Your task to perform on an android device: Search for pizza restaurants on Maps Image 0: 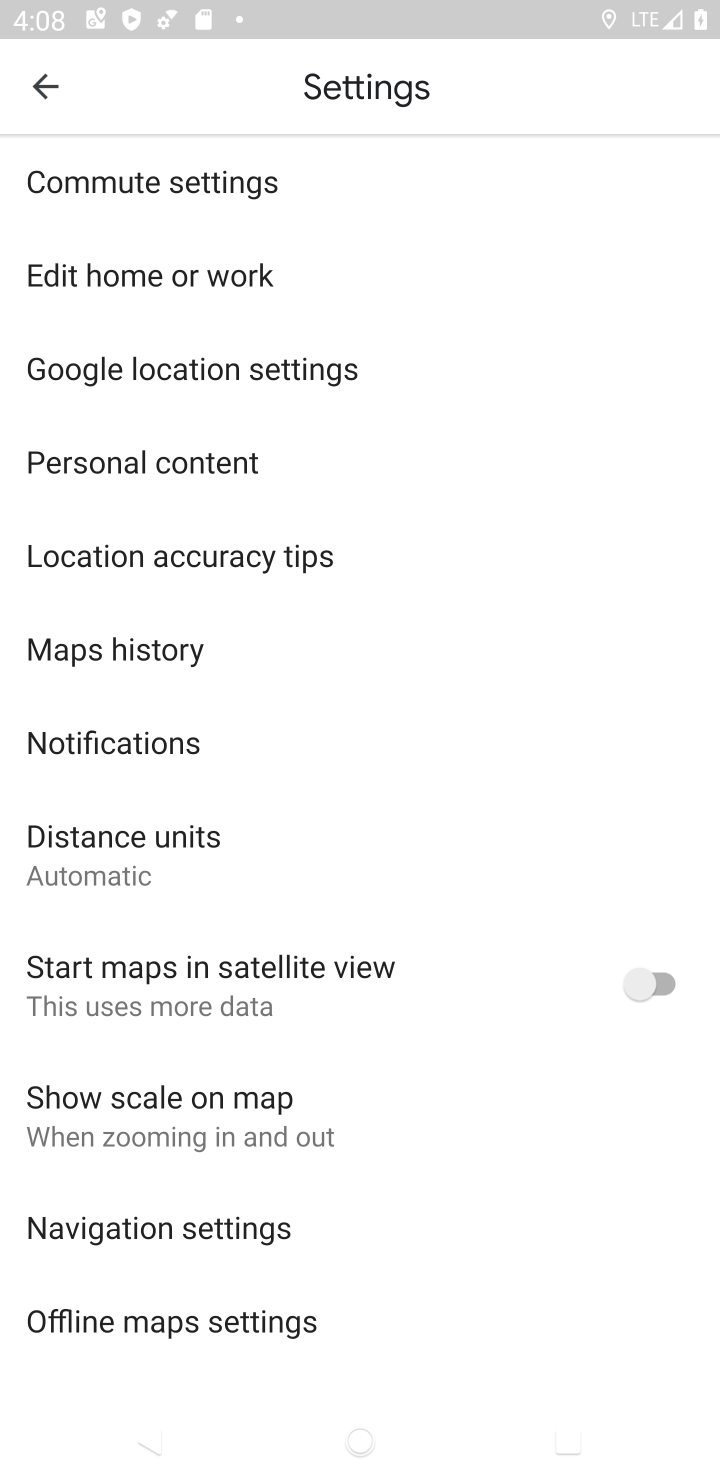
Step 0: press home button
Your task to perform on an android device: Search for pizza restaurants on Maps Image 1: 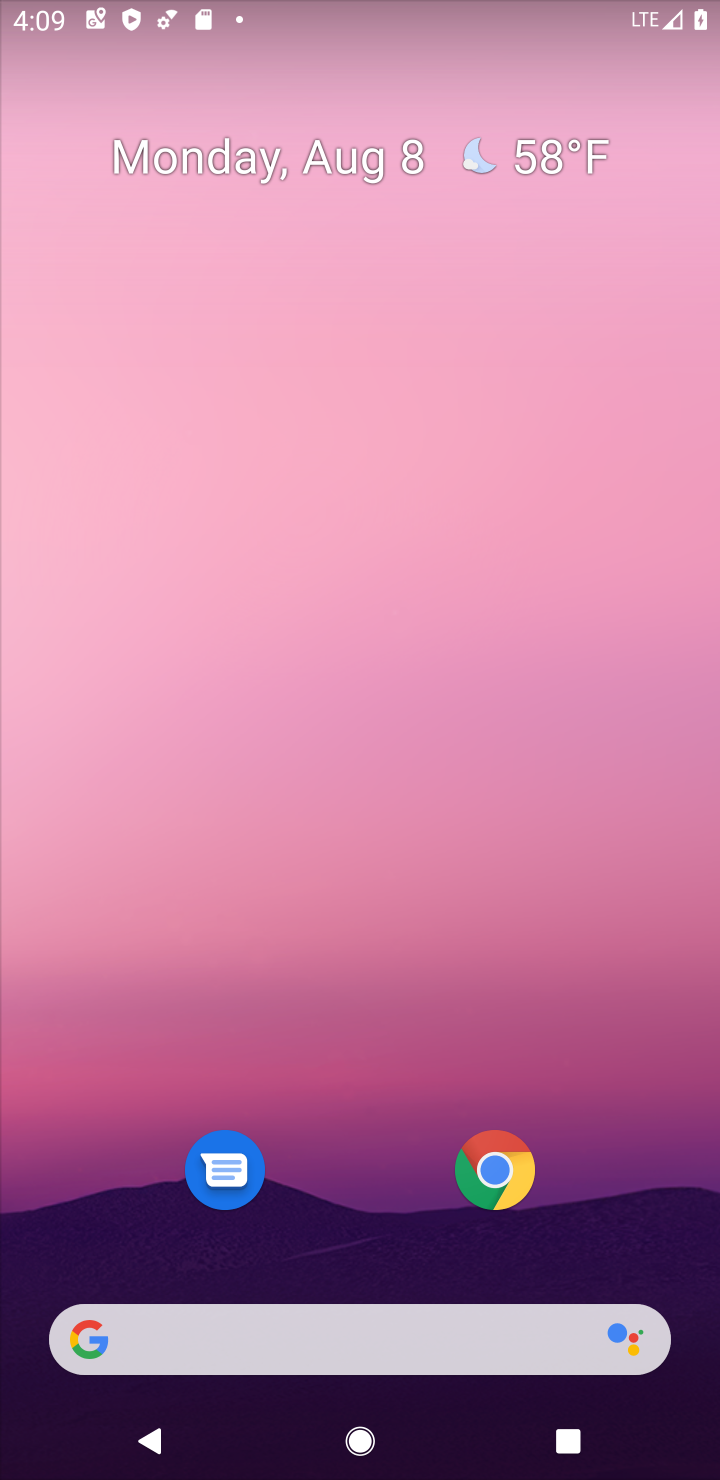
Step 1: drag from (401, 814) to (411, 205)
Your task to perform on an android device: Search for pizza restaurants on Maps Image 2: 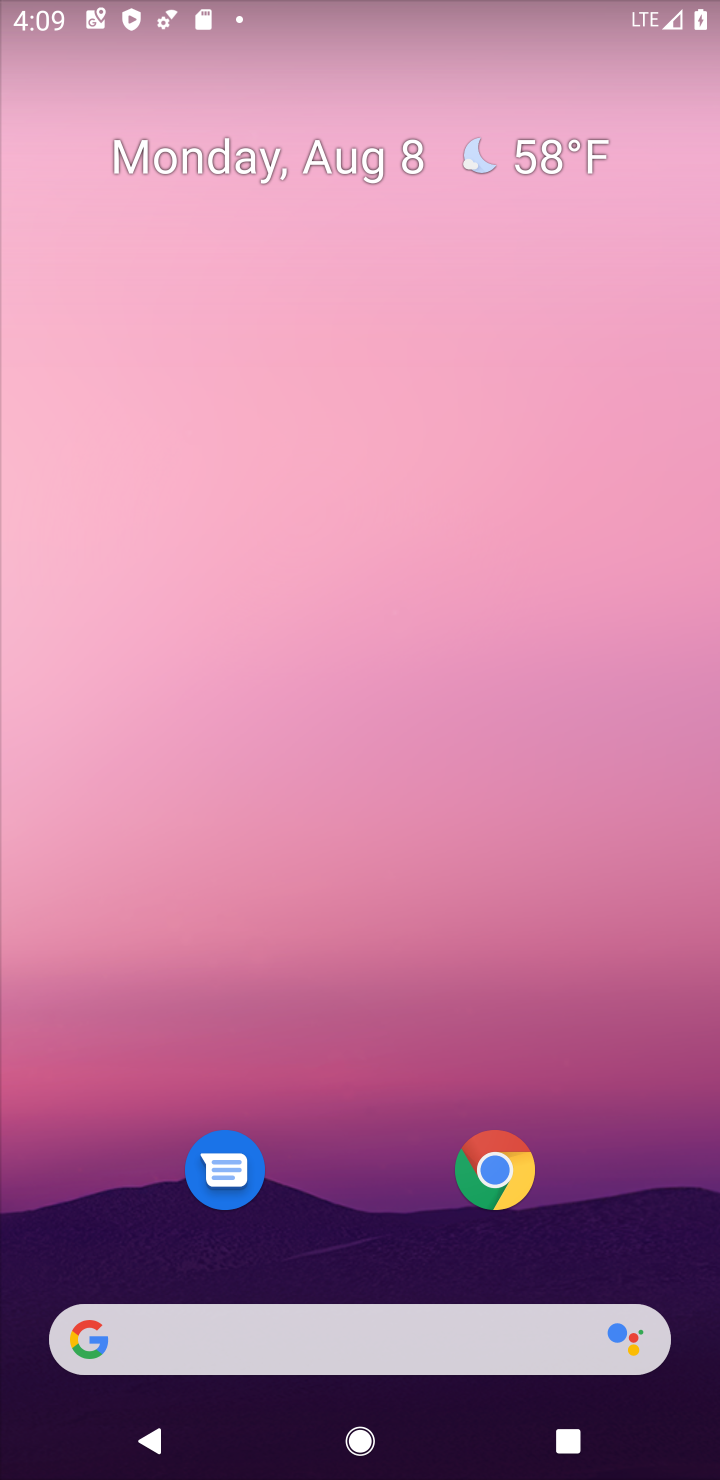
Step 2: drag from (342, 896) to (348, 187)
Your task to perform on an android device: Search for pizza restaurants on Maps Image 3: 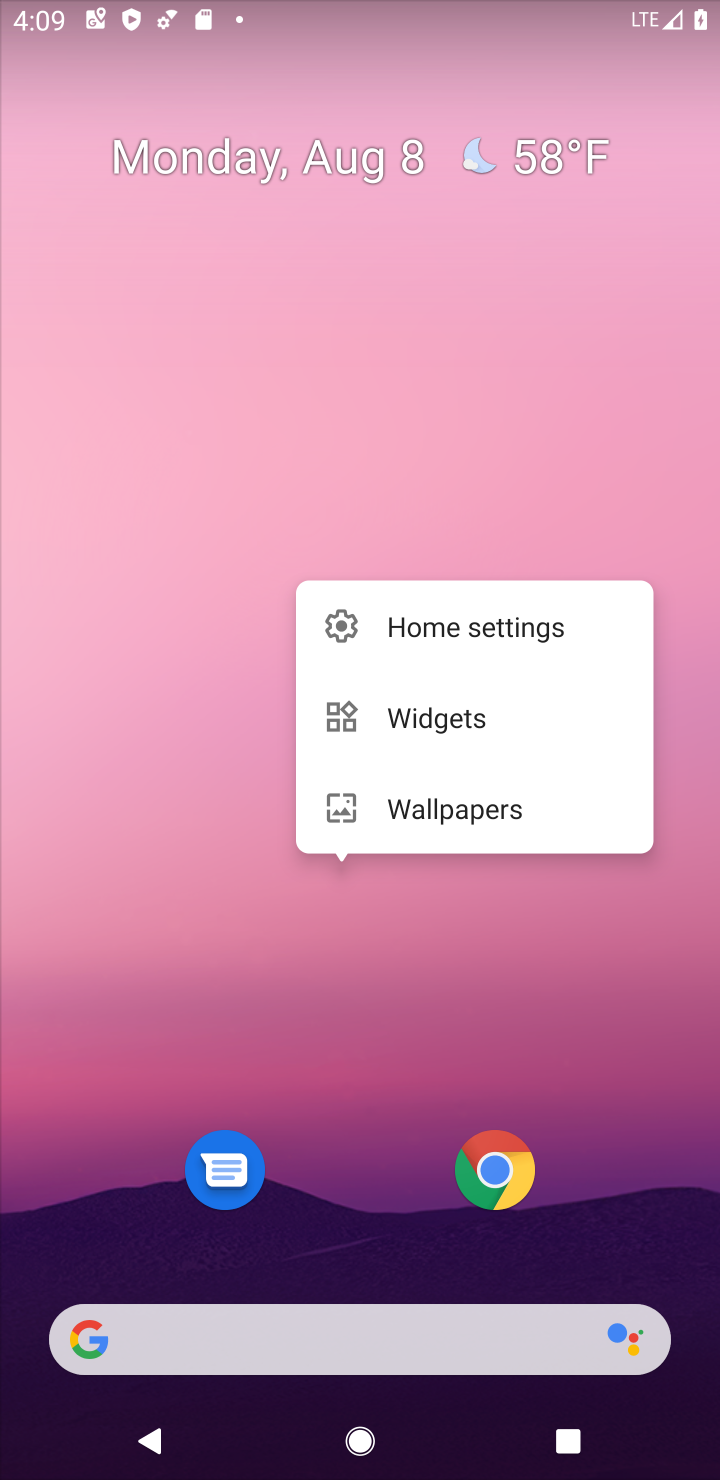
Step 3: click (212, 572)
Your task to perform on an android device: Search for pizza restaurants on Maps Image 4: 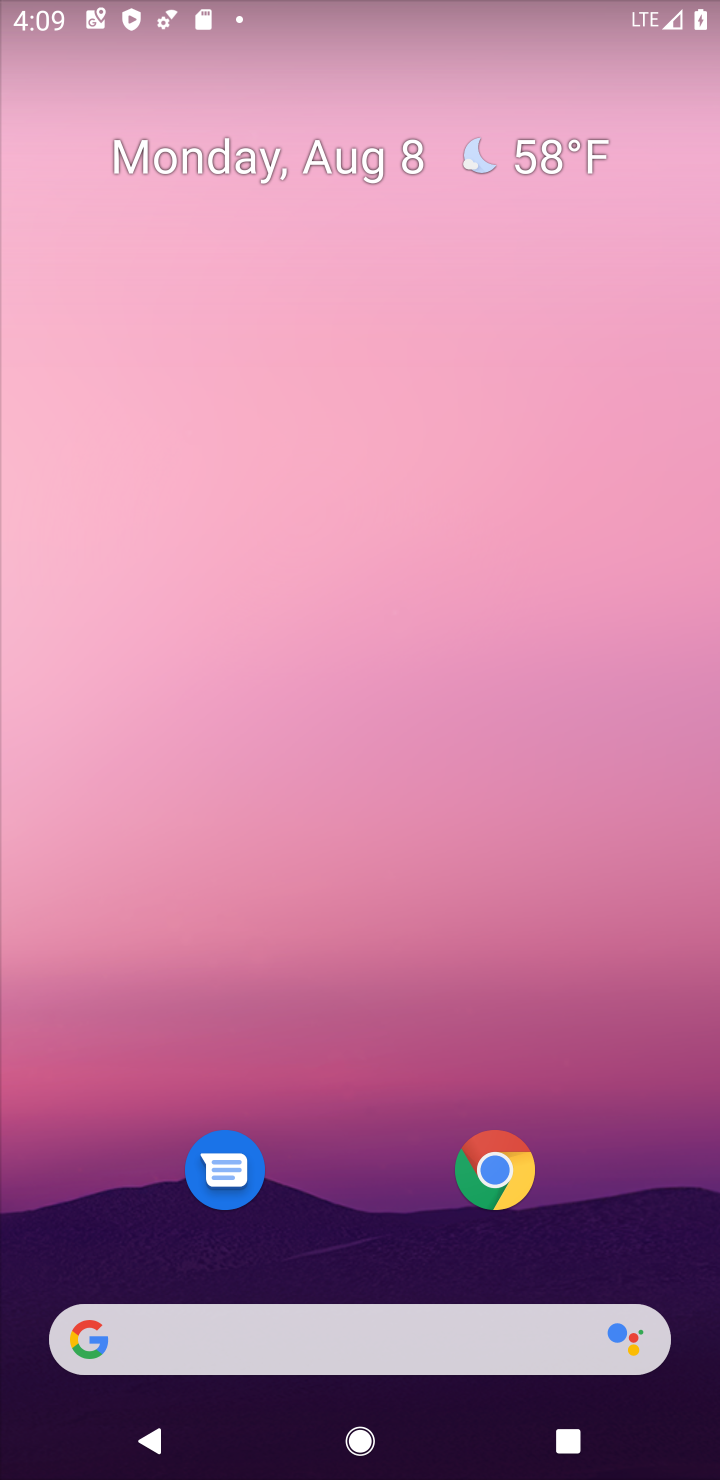
Step 4: drag from (334, 1108) to (351, 163)
Your task to perform on an android device: Search for pizza restaurants on Maps Image 5: 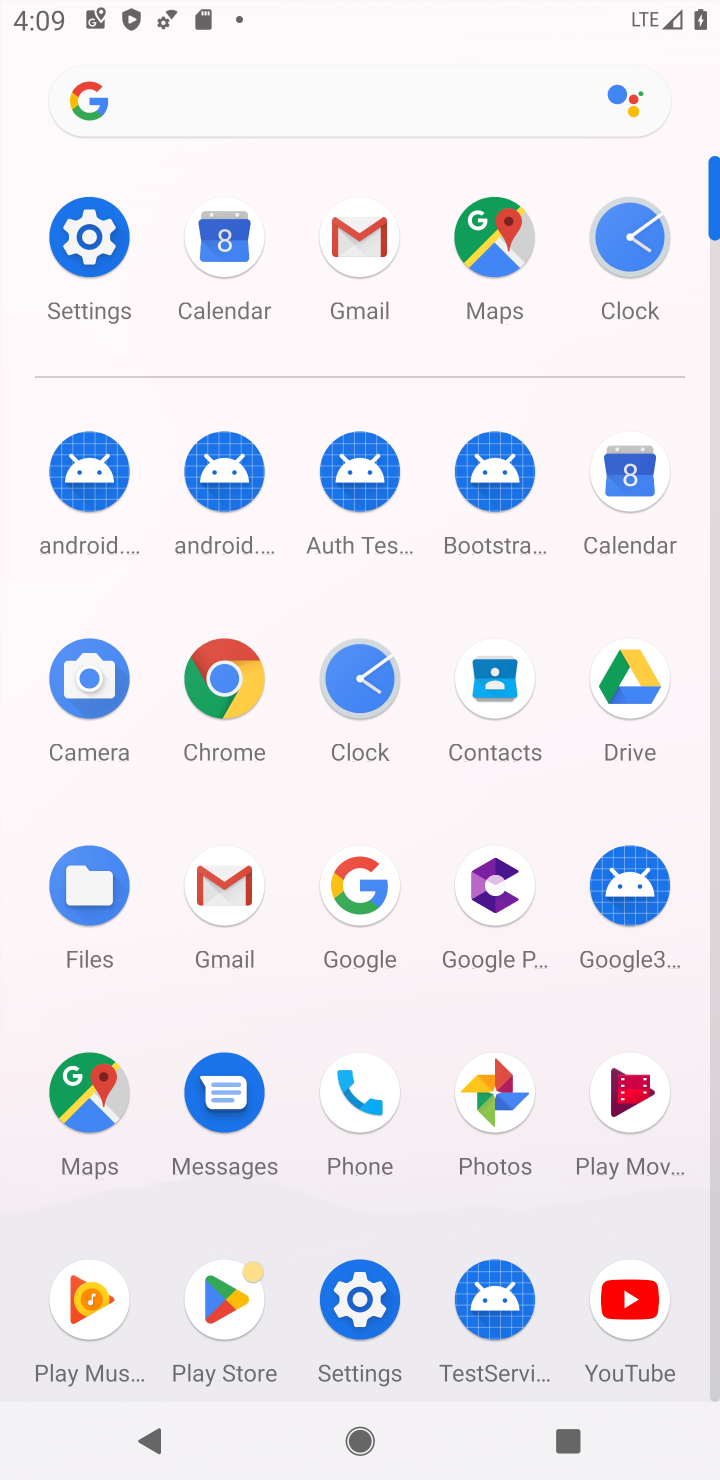
Step 5: click (108, 1103)
Your task to perform on an android device: Search for pizza restaurants on Maps Image 6: 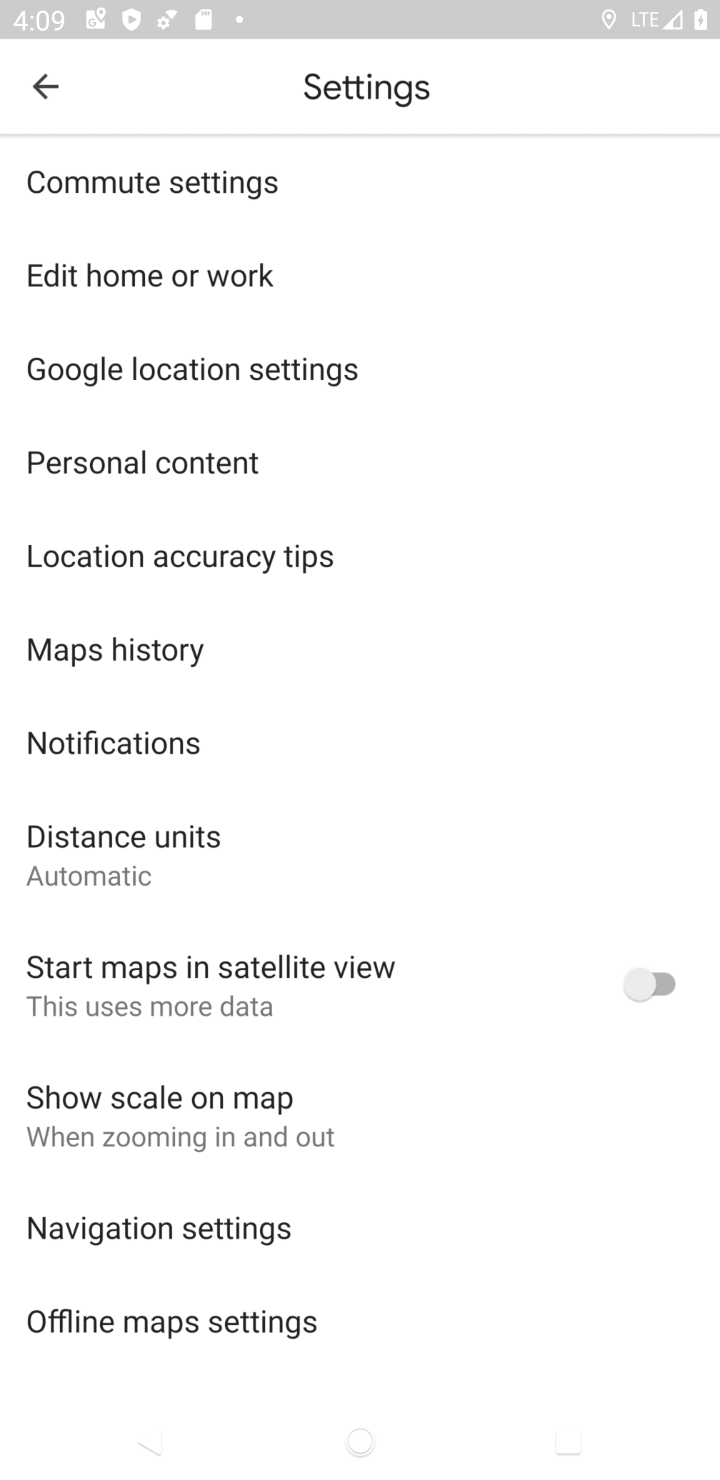
Step 6: click (48, 80)
Your task to perform on an android device: Search for pizza restaurants on Maps Image 7: 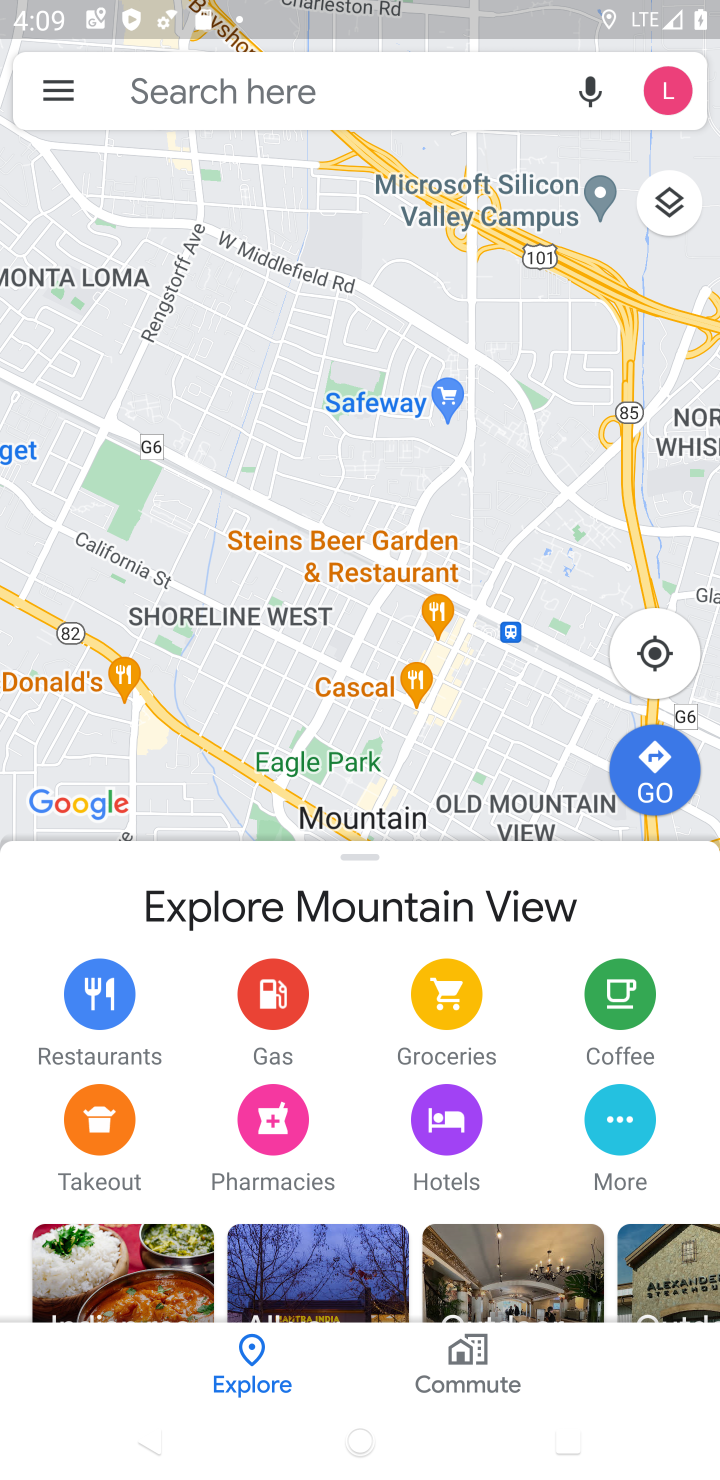
Step 7: click (296, 74)
Your task to perform on an android device: Search for pizza restaurants on Maps Image 8: 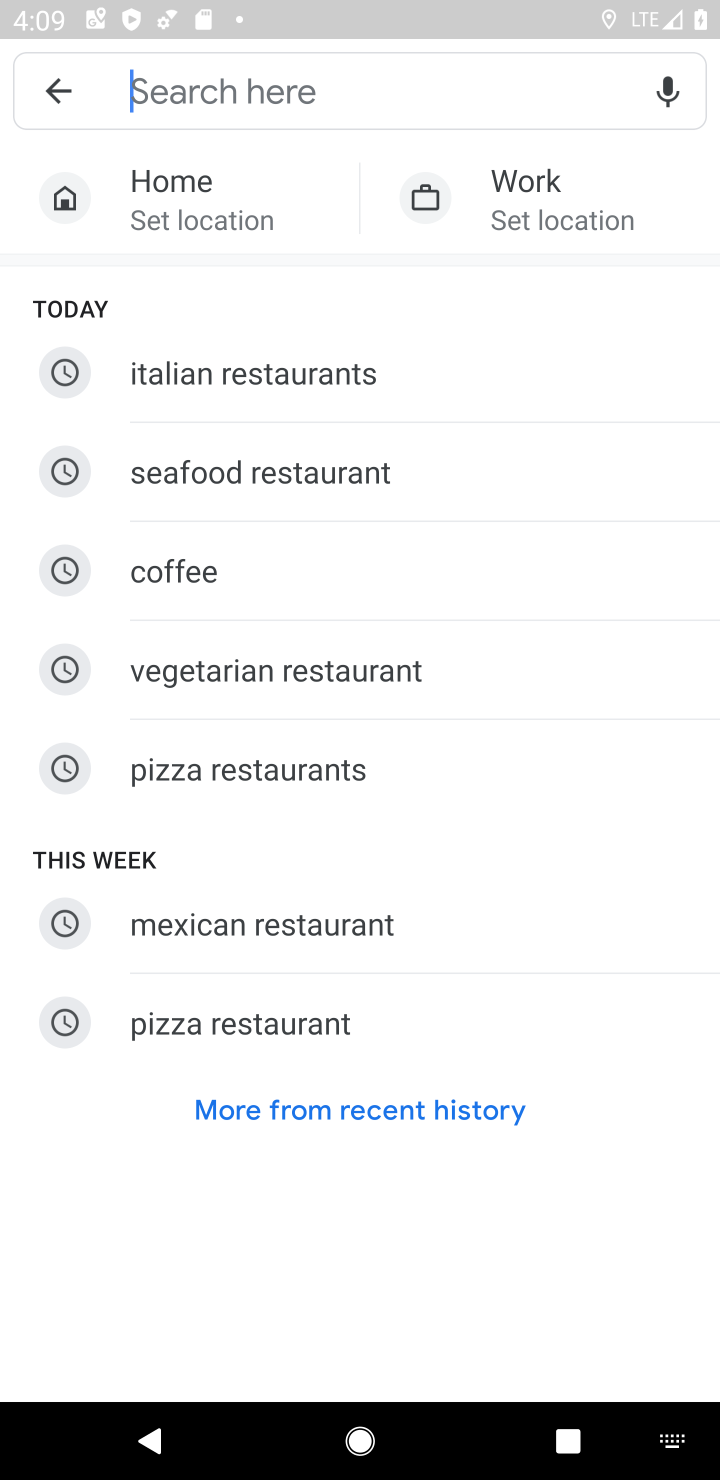
Step 8: click (346, 755)
Your task to perform on an android device: Search for pizza restaurants on Maps Image 9: 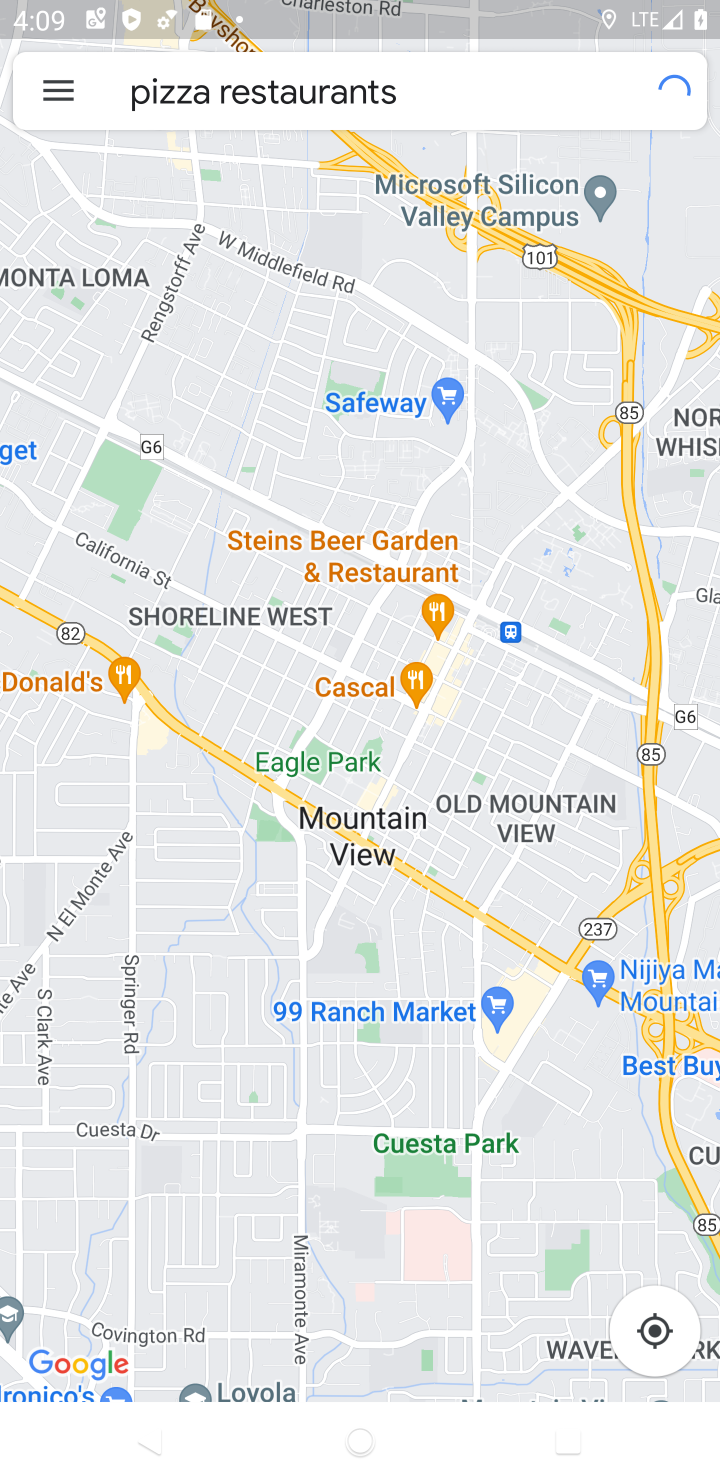
Step 9: task complete